Your task to perform on an android device: Go to network settings Image 0: 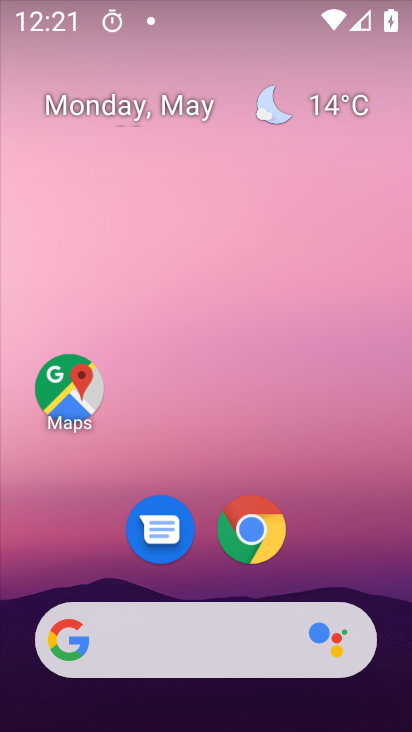
Step 0: drag from (372, 570) to (343, 228)
Your task to perform on an android device: Go to network settings Image 1: 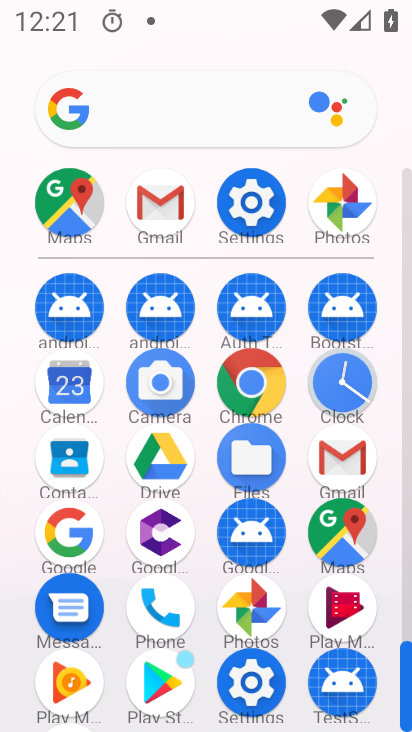
Step 1: click (262, 224)
Your task to perform on an android device: Go to network settings Image 2: 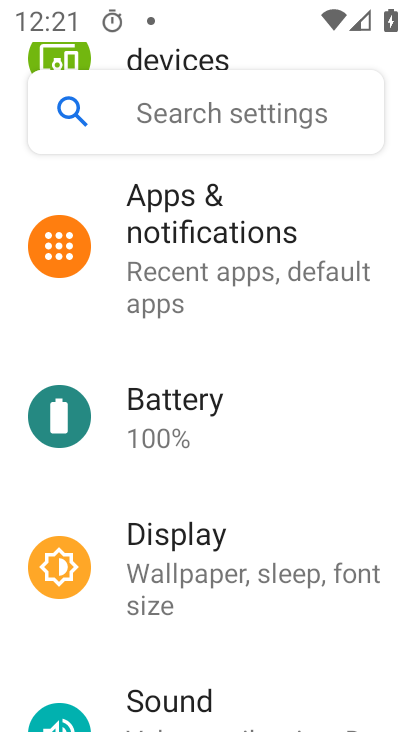
Step 2: drag from (315, 522) to (327, 450)
Your task to perform on an android device: Go to network settings Image 3: 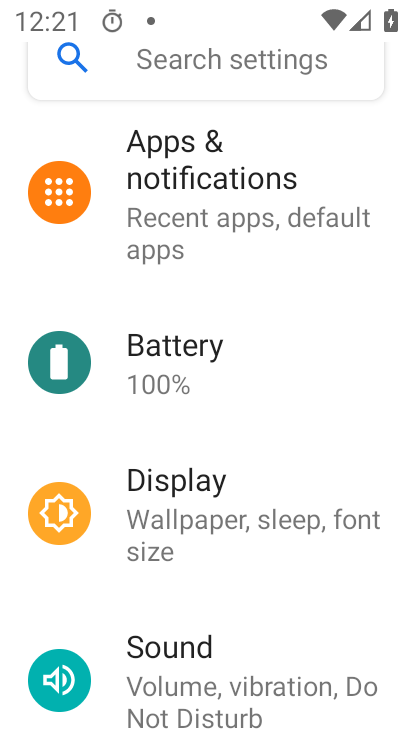
Step 3: drag from (325, 565) to (334, 459)
Your task to perform on an android device: Go to network settings Image 4: 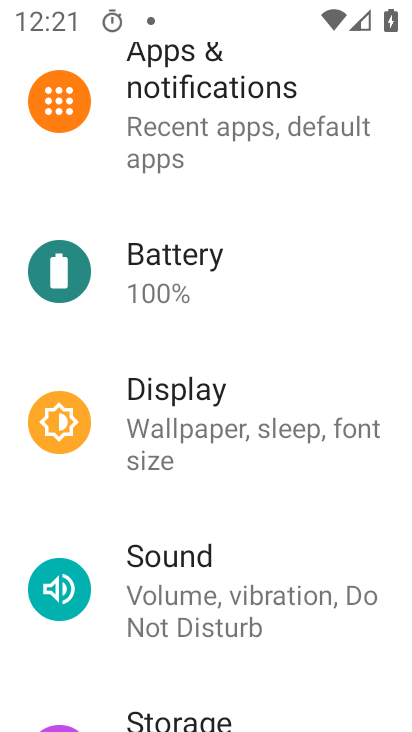
Step 4: drag from (336, 562) to (335, 458)
Your task to perform on an android device: Go to network settings Image 5: 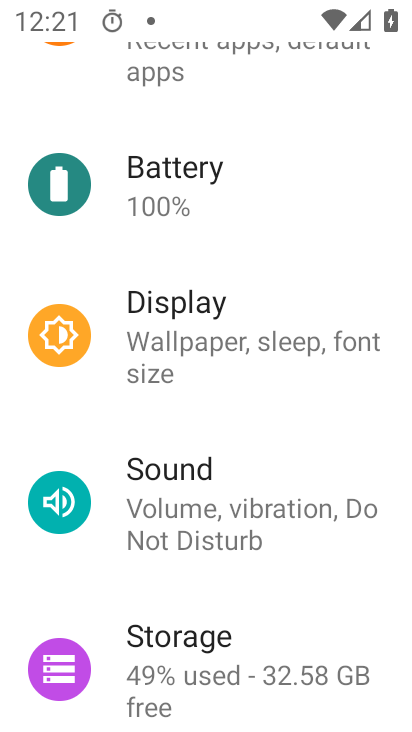
Step 5: drag from (331, 602) to (332, 523)
Your task to perform on an android device: Go to network settings Image 6: 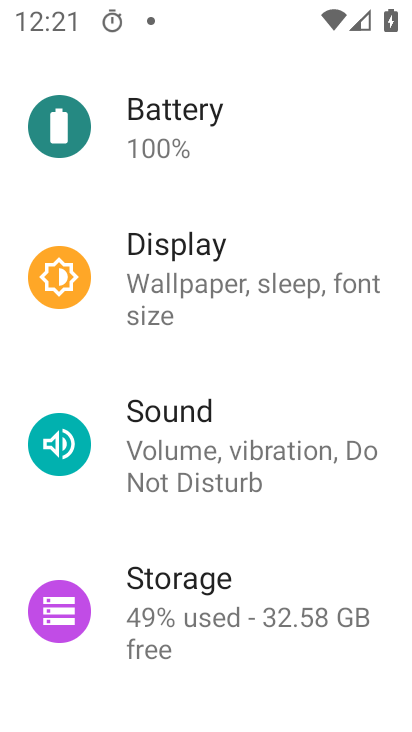
Step 6: drag from (346, 650) to (351, 542)
Your task to perform on an android device: Go to network settings Image 7: 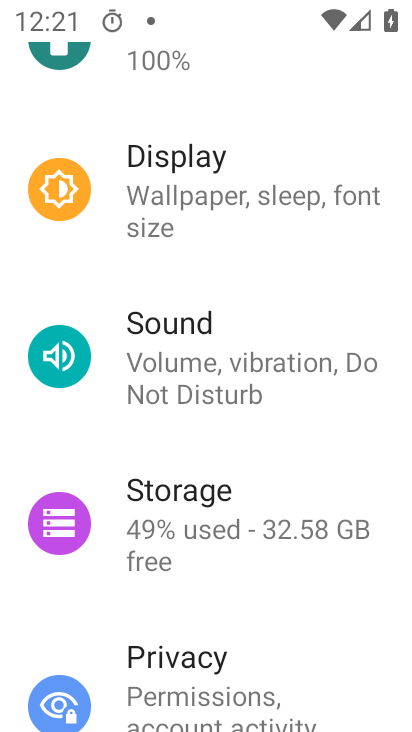
Step 7: drag from (344, 652) to (353, 528)
Your task to perform on an android device: Go to network settings Image 8: 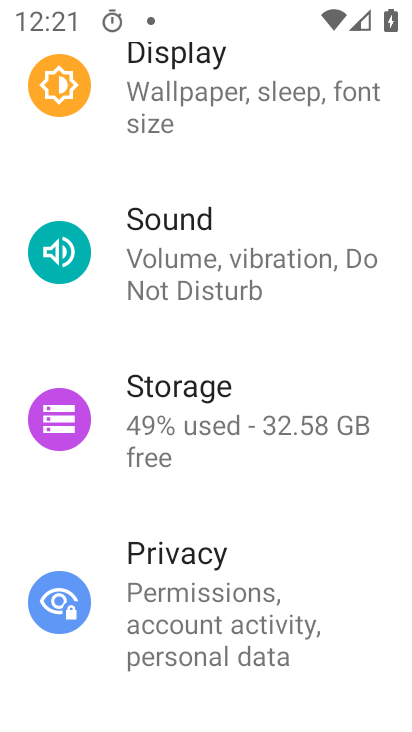
Step 8: drag from (354, 664) to (355, 559)
Your task to perform on an android device: Go to network settings Image 9: 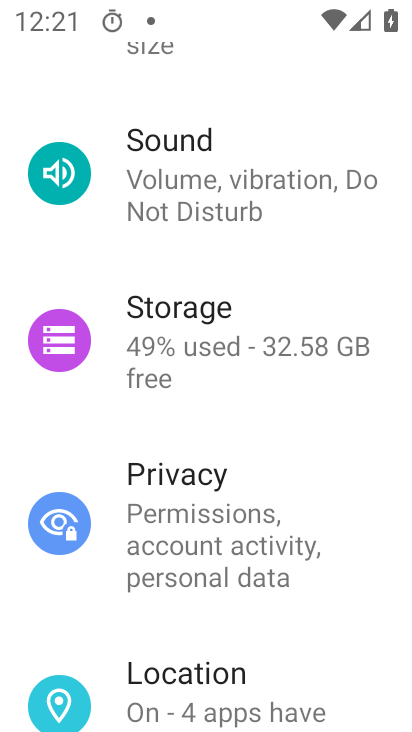
Step 9: drag from (340, 667) to (343, 525)
Your task to perform on an android device: Go to network settings Image 10: 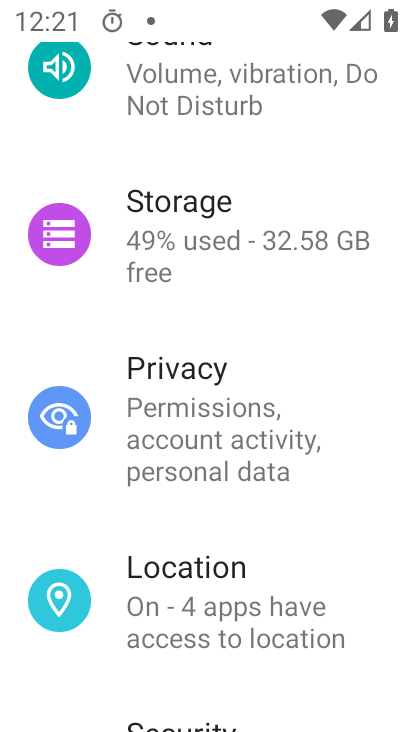
Step 10: drag from (371, 666) to (374, 555)
Your task to perform on an android device: Go to network settings Image 11: 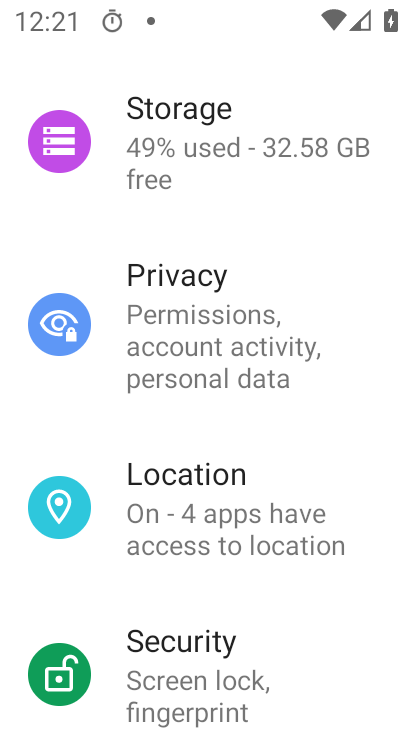
Step 11: drag from (356, 685) to (361, 485)
Your task to perform on an android device: Go to network settings Image 12: 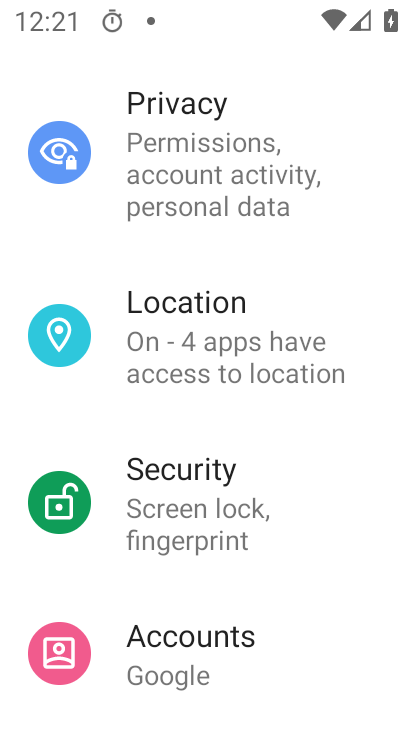
Step 12: drag from (369, 646) to (369, 509)
Your task to perform on an android device: Go to network settings Image 13: 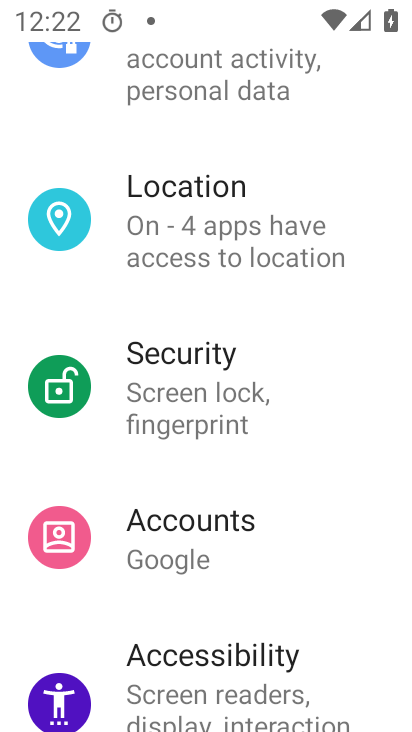
Step 13: drag from (354, 661) to (340, 528)
Your task to perform on an android device: Go to network settings Image 14: 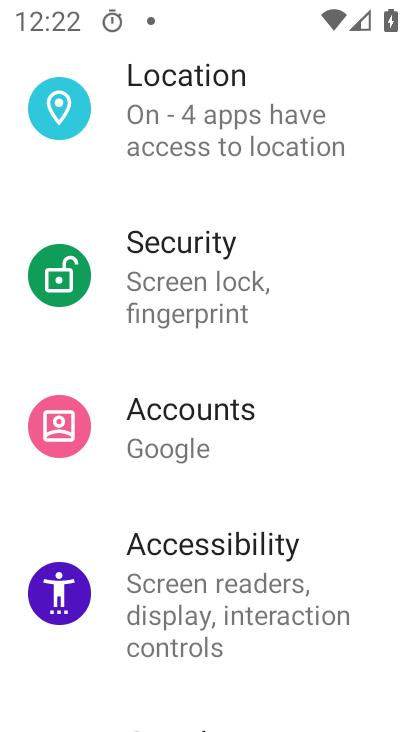
Step 14: drag from (347, 347) to (348, 476)
Your task to perform on an android device: Go to network settings Image 15: 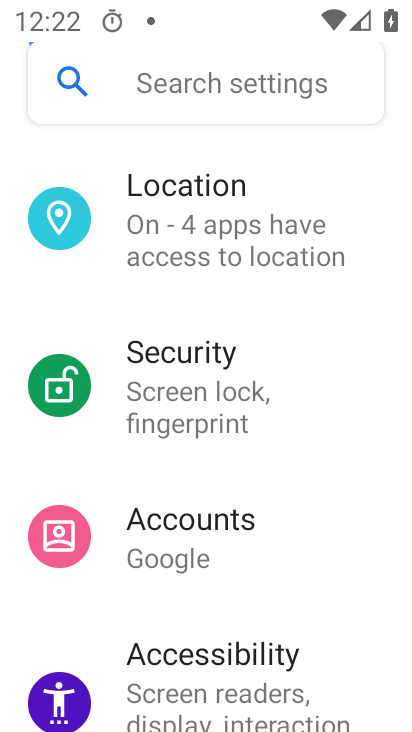
Step 15: drag from (348, 360) to (348, 452)
Your task to perform on an android device: Go to network settings Image 16: 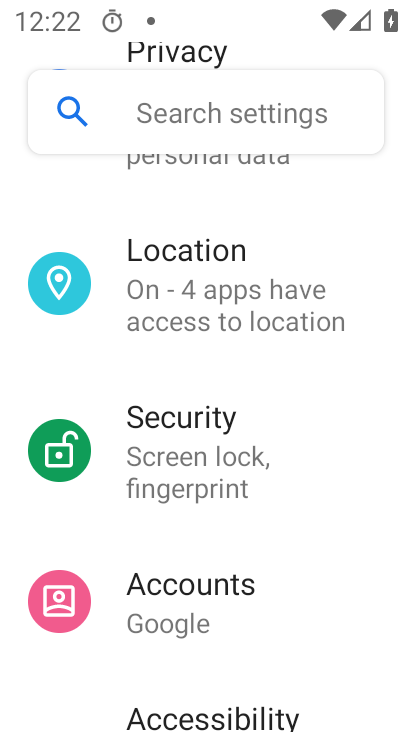
Step 16: drag from (349, 374) to (344, 468)
Your task to perform on an android device: Go to network settings Image 17: 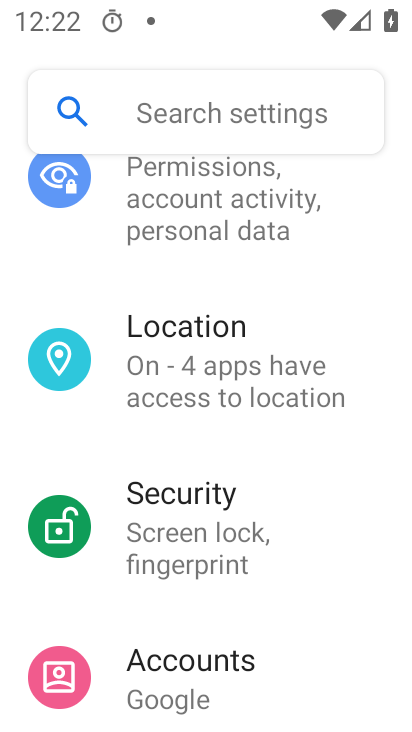
Step 17: drag from (363, 368) to (352, 475)
Your task to perform on an android device: Go to network settings Image 18: 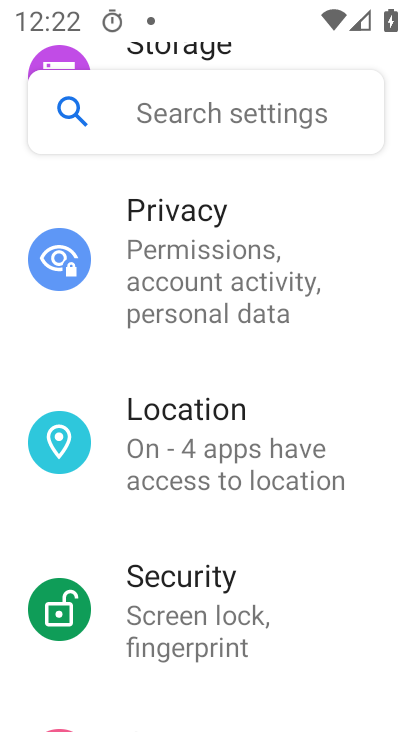
Step 18: drag from (350, 338) to (344, 444)
Your task to perform on an android device: Go to network settings Image 19: 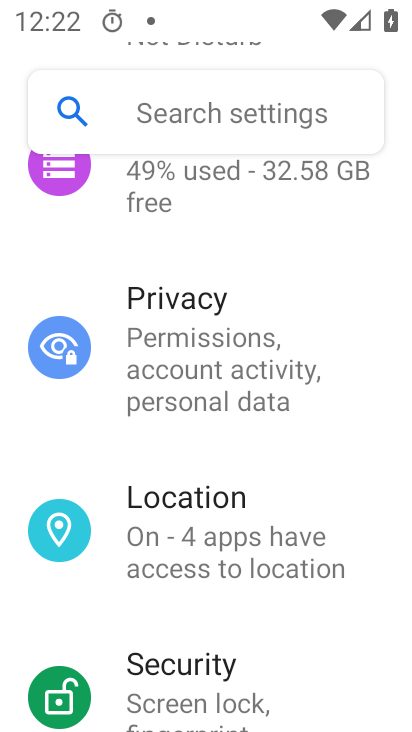
Step 19: drag from (349, 306) to (344, 415)
Your task to perform on an android device: Go to network settings Image 20: 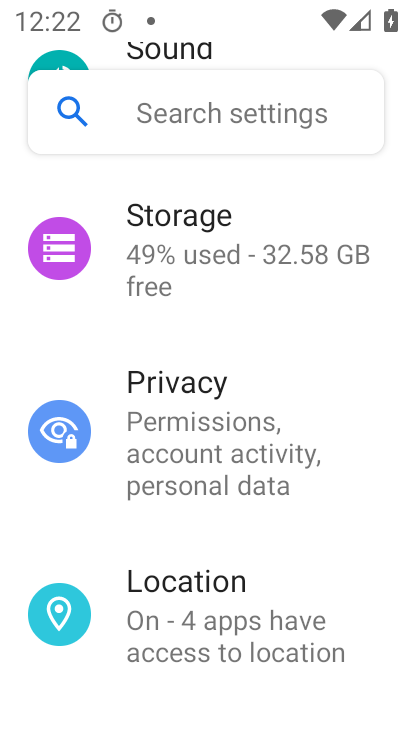
Step 20: drag from (347, 306) to (342, 422)
Your task to perform on an android device: Go to network settings Image 21: 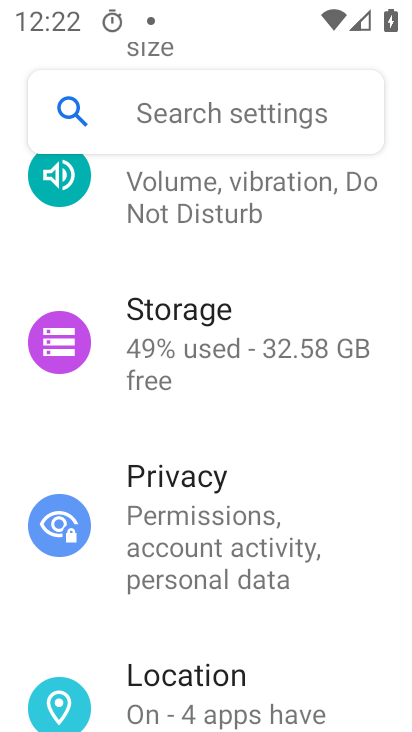
Step 21: drag from (348, 278) to (346, 414)
Your task to perform on an android device: Go to network settings Image 22: 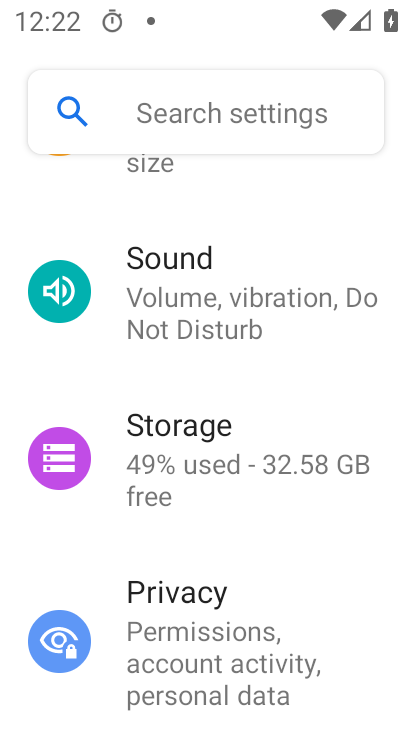
Step 22: drag from (345, 246) to (339, 382)
Your task to perform on an android device: Go to network settings Image 23: 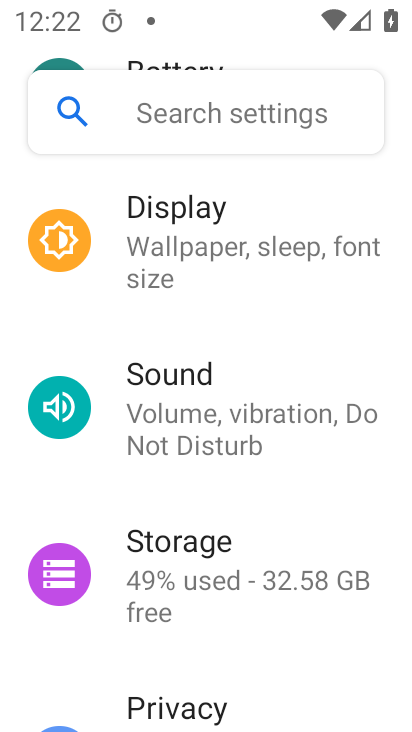
Step 23: drag from (332, 224) to (332, 368)
Your task to perform on an android device: Go to network settings Image 24: 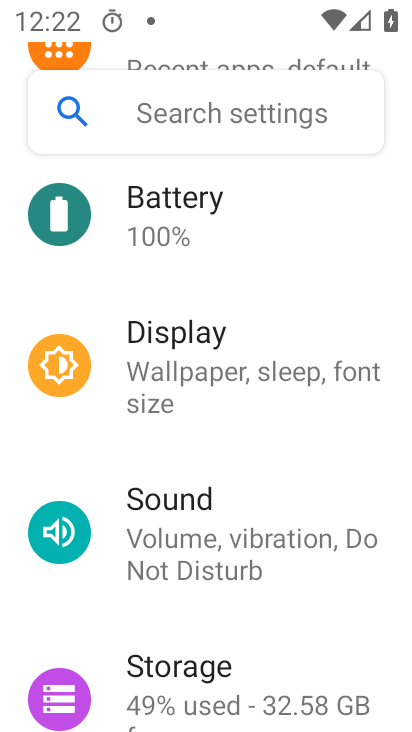
Step 24: drag from (337, 217) to (333, 376)
Your task to perform on an android device: Go to network settings Image 25: 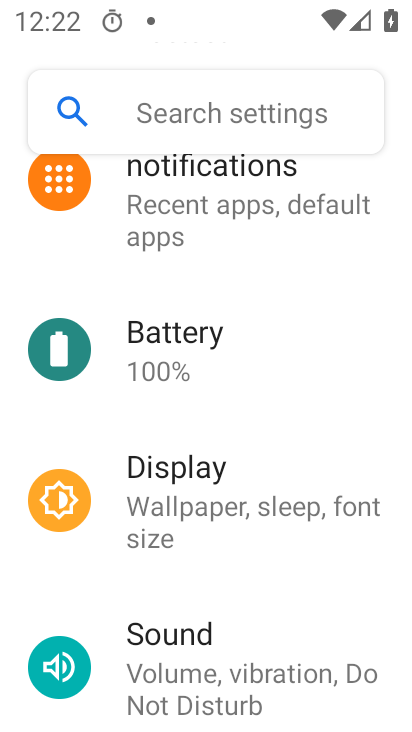
Step 25: drag from (377, 179) to (362, 329)
Your task to perform on an android device: Go to network settings Image 26: 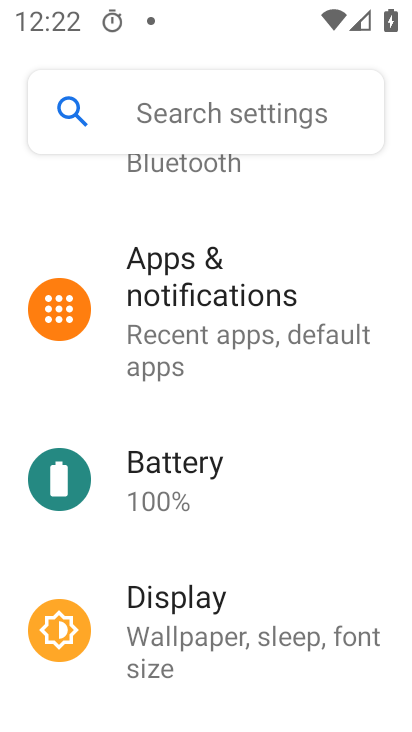
Step 26: drag from (370, 187) to (342, 354)
Your task to perform on an android device: Go to network settings Image 27: 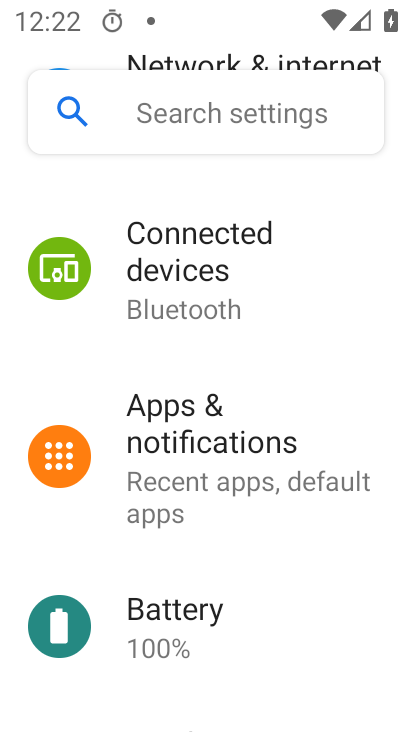
Step 27: drag from (342, 180) to (322, 335)
Your task to perform on an android device: Go to network settings Image 28: 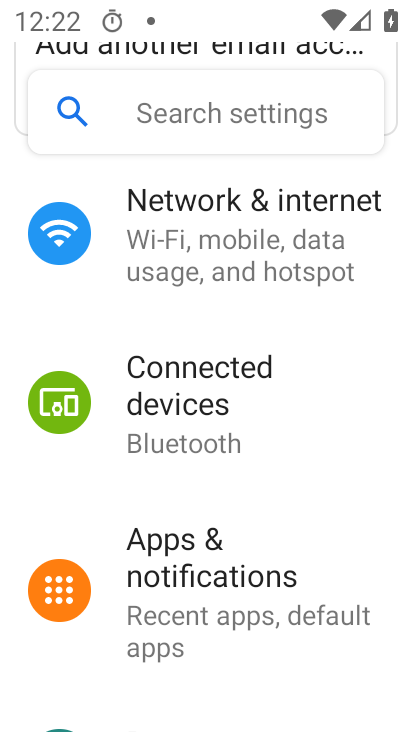
Step 28: click (290, 246)
Your task to perform on an android device: Go to network settings Image 29: 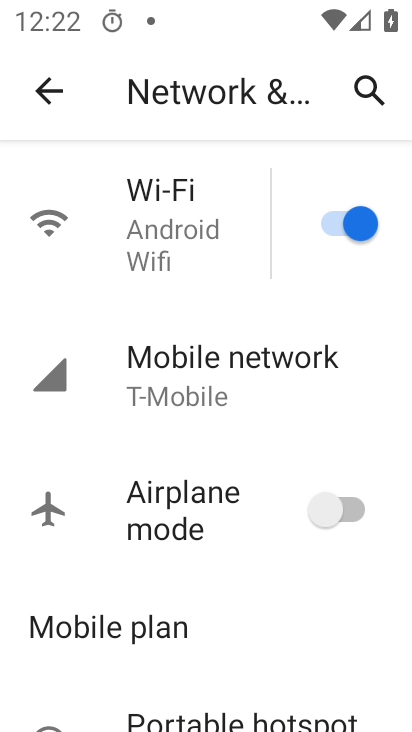
Step 29: task complete